Your task to perform on an android device: Go to Google Image 0: 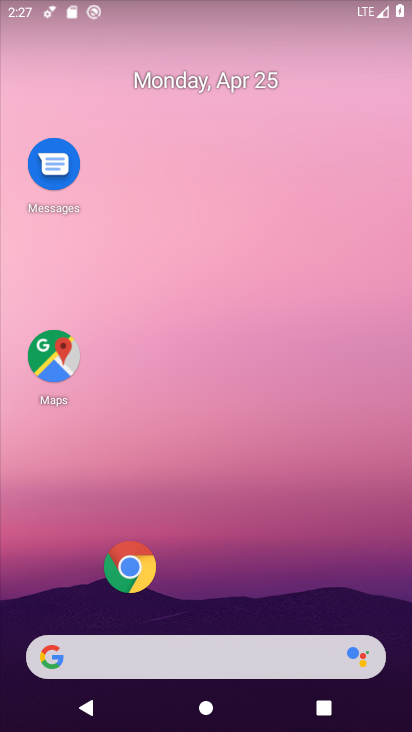
Step 0: drag from (213, 586) to (294, 101)
Your task to perform on an android device: Go to Google Image 1: 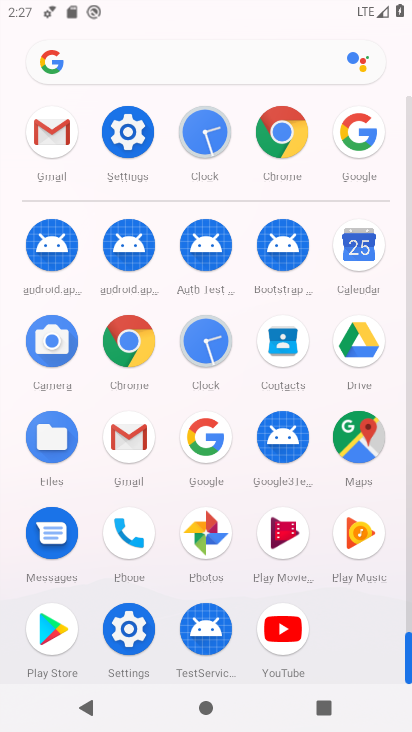
Step 1: click (206, 453)
Your task to perform on an android device: Go to Google Image 2: 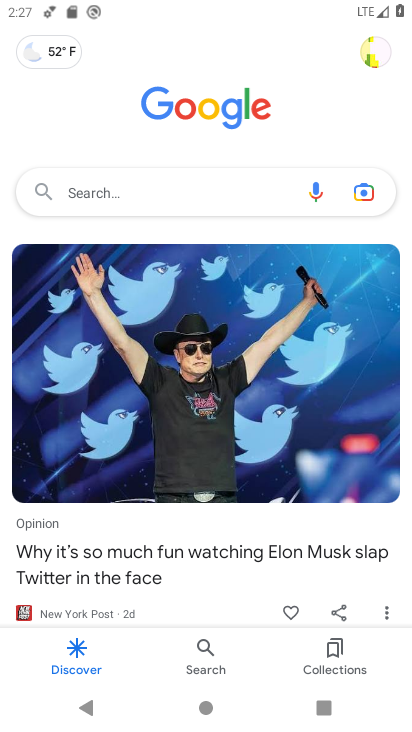
Step 2: task complete